Your task to perform on an android device: change notification settings in the gmail app Image 0: 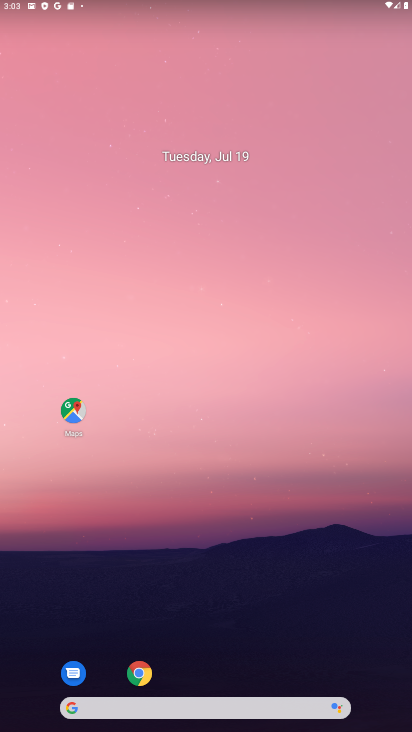
Step 0: press home button
Your task to perform on an android device: change notification settings in the gmail app Image 1: 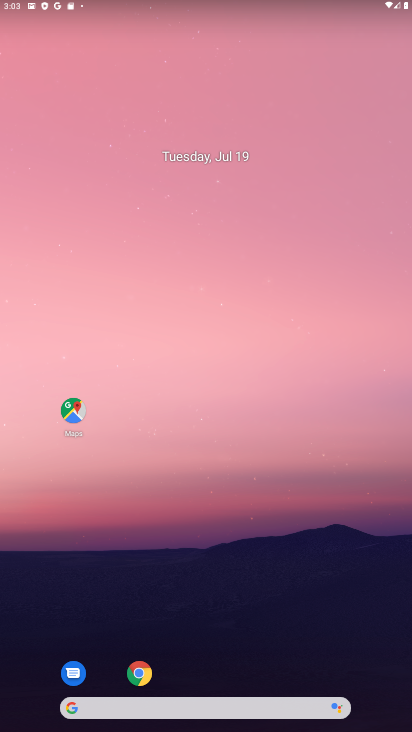
Step 1: click (189, 694)
Your task to perform on an android device: change notification settings in the gmail app Image 2: 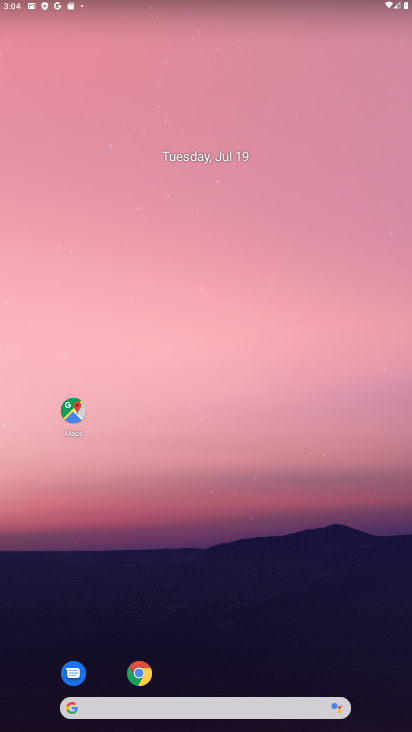
Step 2: drag from (214, 668) to (279, 81)
Your task to perform on an android device: change notification settings in the gmail app Image 3: 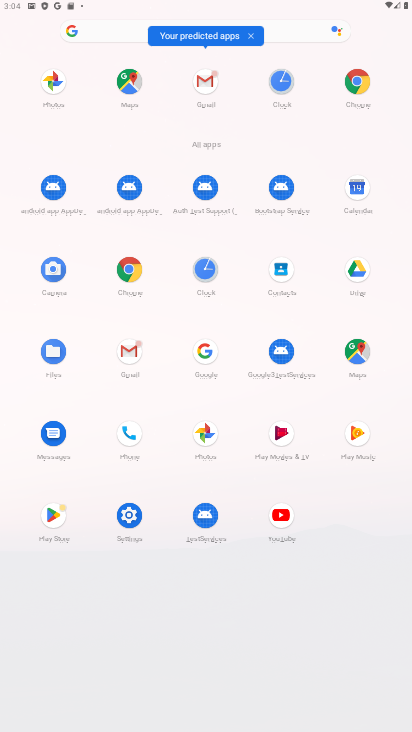
Step 3: click (127, 342)
Your task to perform on an android device: change notification settings in the gmail app Image 4: 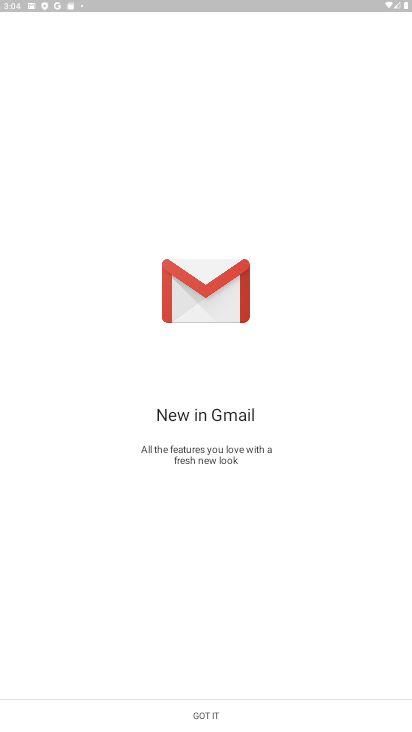
Step 4: click (200, 711)
Your task to perform on an android device: change notification settings in the gmail app Image 5: 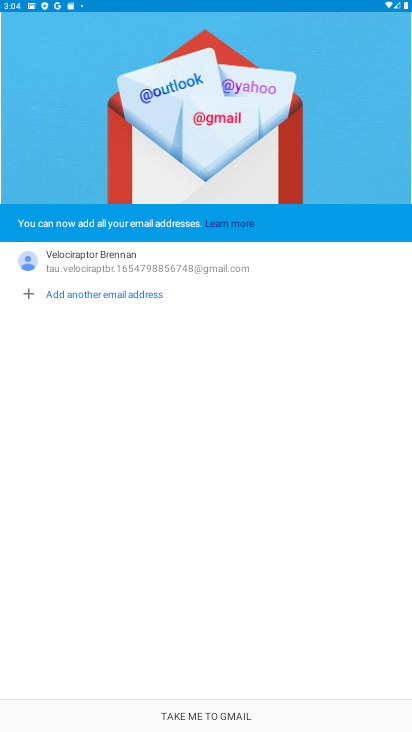
Step 5: click (205, 708)
Your task to perform on an android device: change notification settings in the gmail app Image 6: 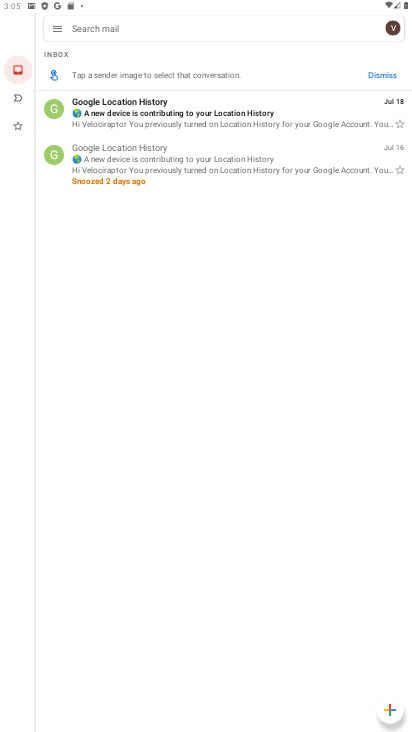
Step 6: click (48, 25)
Your task to perform on an android device: change notification settings in the gmail app Image 7: 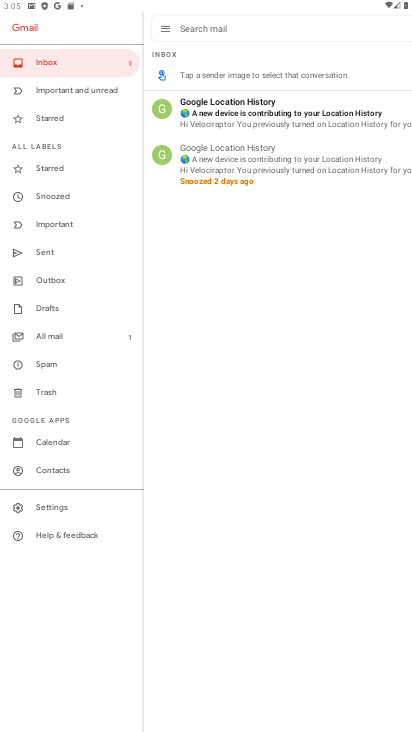
Step 7: click (54, 506)
Your task to perform on an android device: change notification settings in the gmail app Image 8: 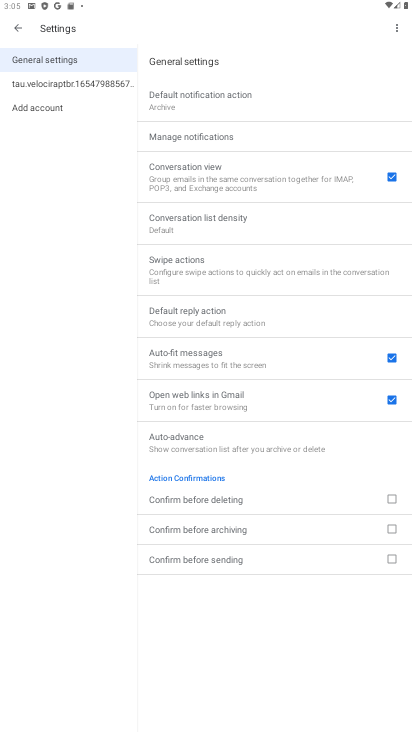
Step 8: click (229, 135)
Your task to perform on an android device: change notification settings in the gmail app Image 9: 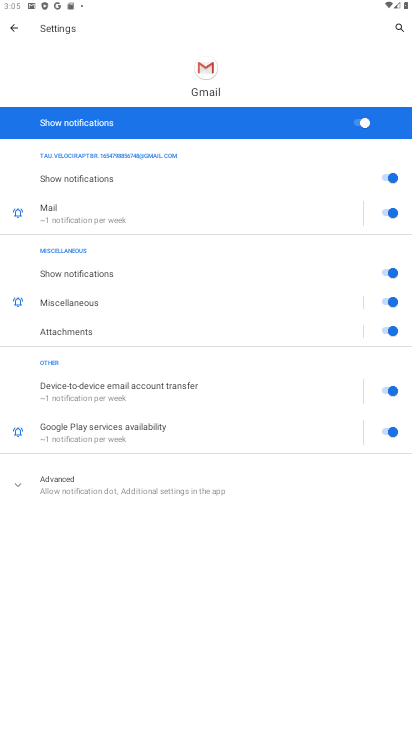
Step 9: click (358, 118)
Your task to perform on an android device: change notification settings in the gmail app Image 10: 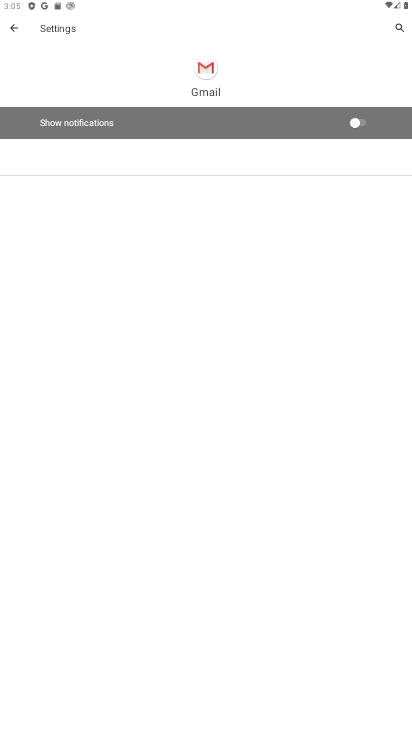
Step 10: task complete